Your task to perform on an android device: open the mobile data screen to see how much data has been used Image 0: 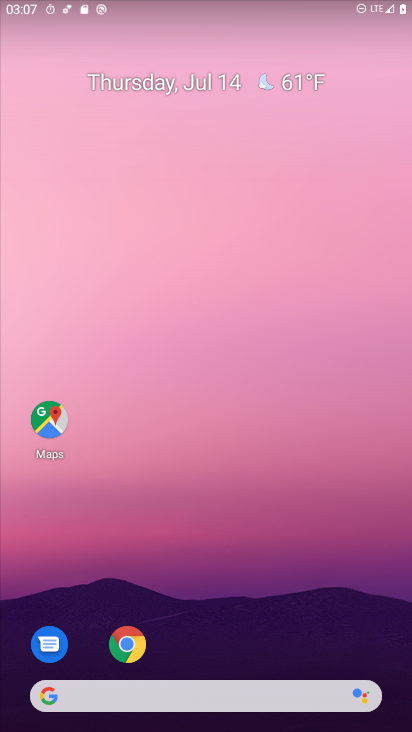
Step 0: drag from (281, 559) to (252, 109)
Your task to perform on an android device: open the mobile data screen to see how much data has been used Image 1: 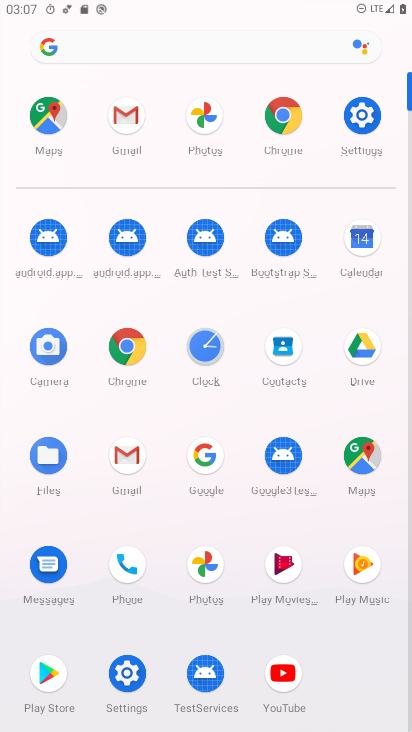
Step 1: click (360, 116)
Your task to perform on an android device: open the mobile data screen to see how much data has been used Image 2: 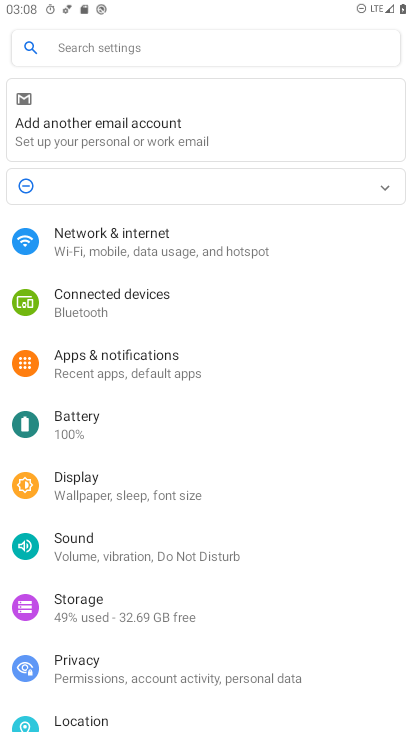
Step 2: click (184, 248)
Your task to perform on an android device: open the mobile data screen to see how much data has been used Image 3: 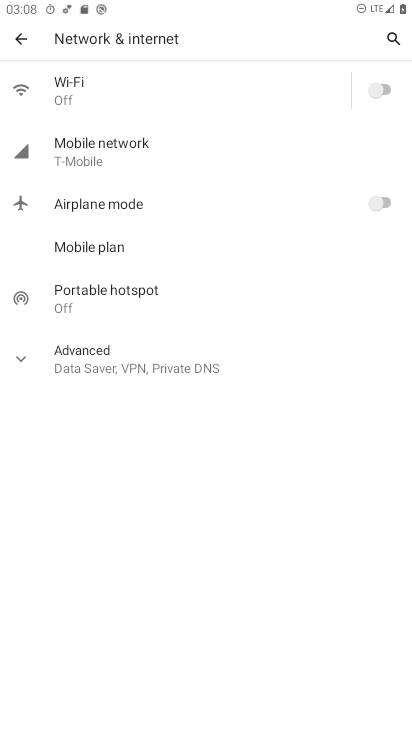
Step 3: click (96, 157)
Your task to perform on an android device: open the mobile data screen to see how much data has been used Image 4: 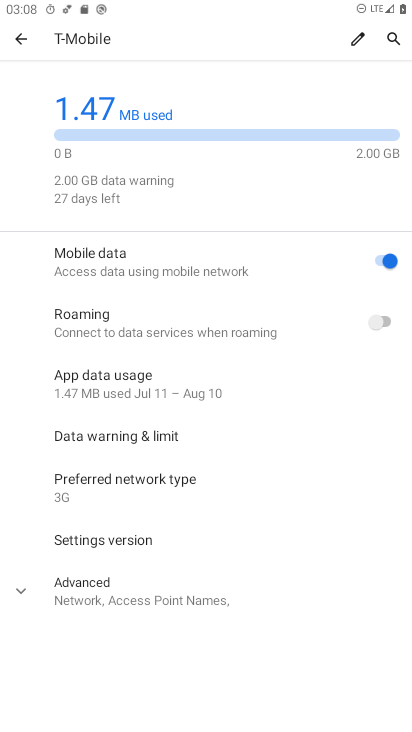
Step 4: task complete